Your task to perform on an android device: Go to Wikipedia Image 0: 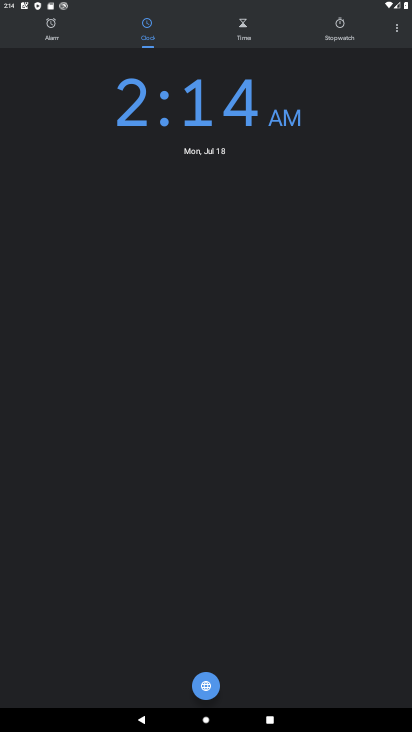
Step 0: press home button
Your task to perform on an android device: Go to Wikipedia Image 1: 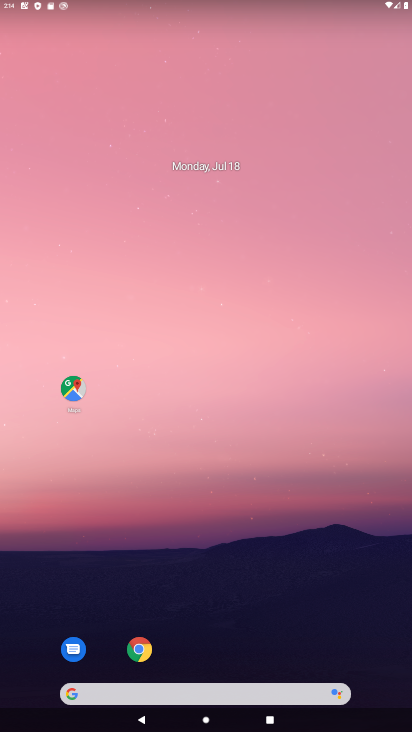
Step 1: drag from (270, 321) to (331, 0)
Your task to perform on an android device: Go to Wikipedia Image 2: 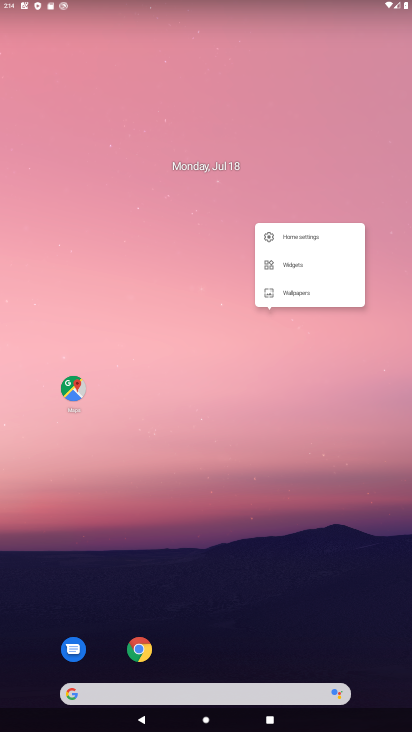
Step 2: click (227, 634)
Your task to perform on an android device: Go to Wikipedia Image 3: 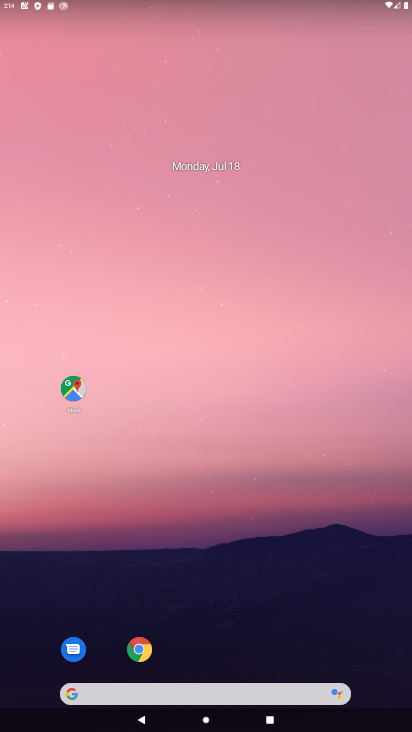
Step 3: drag from (219, 664) to (228, 152)
Your task to perform on an android device: Go to Wikipedia Image 4: 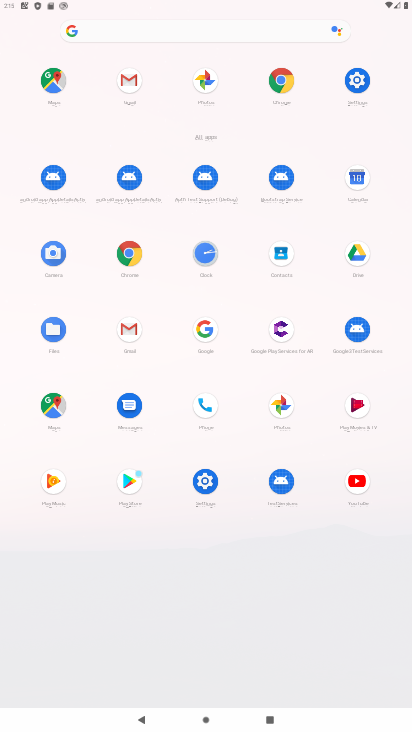
Step 4: click (130, 256)
Your task to perform on an android device: Go to Wikipedia Image 5: 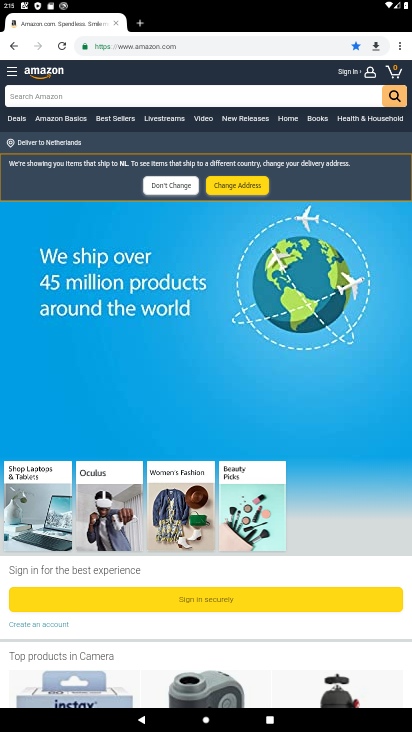
Step 5: click (155, 43)
Your task to perform on an android device: Go to Wikipedia Image 6: 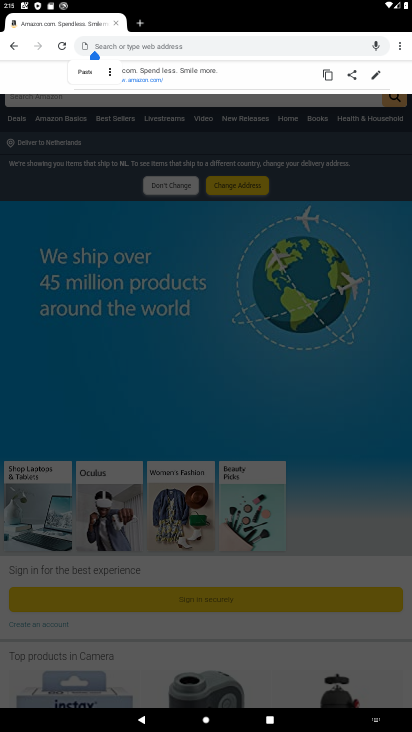
Step 6: click (186, 52)
Your task to perform on an android device: Go to Wikipedia Image 7: 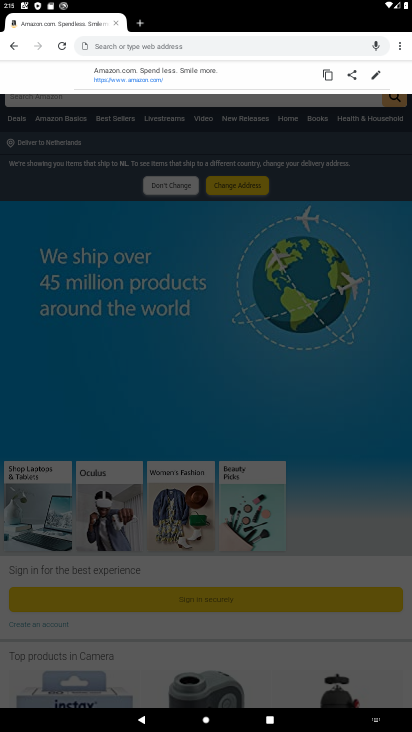
Step 7: type "wikipedia"
Your task to perform on an android device: Go to Wikipedia Image 8: 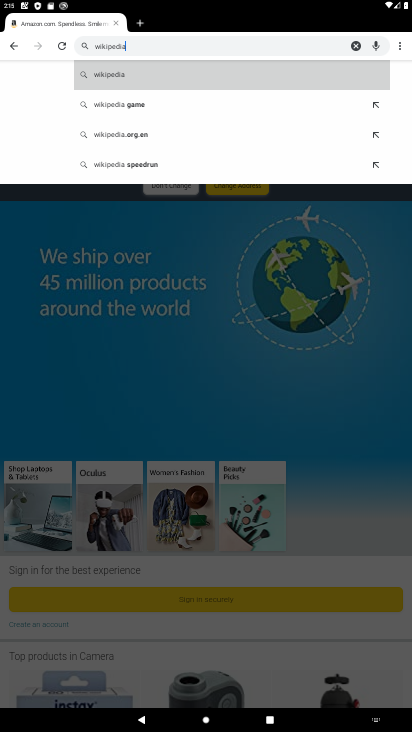
Step 8: click (113, 75)
Your task to perform on an android device: Go to Wikipedia Image 9: 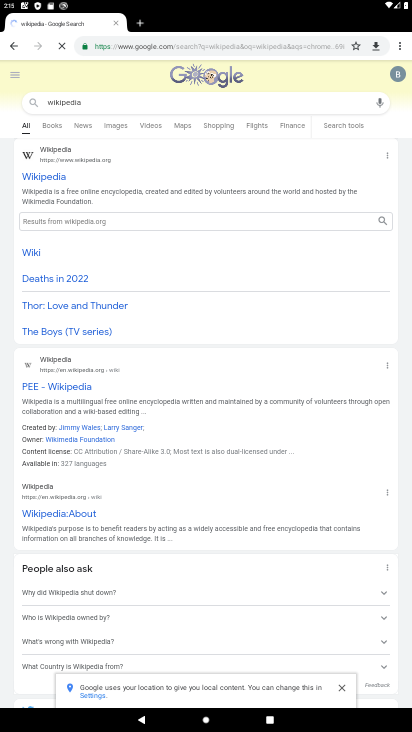
Step 9: task complete